Your task to perform on an android device: Open Google Chrome Image 0: 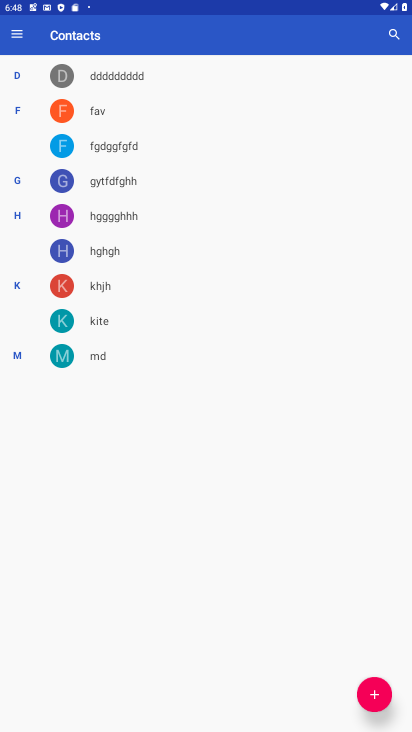
Step 0: press home button
Your task to perform on an android device: Open Google Chrome Image 1: 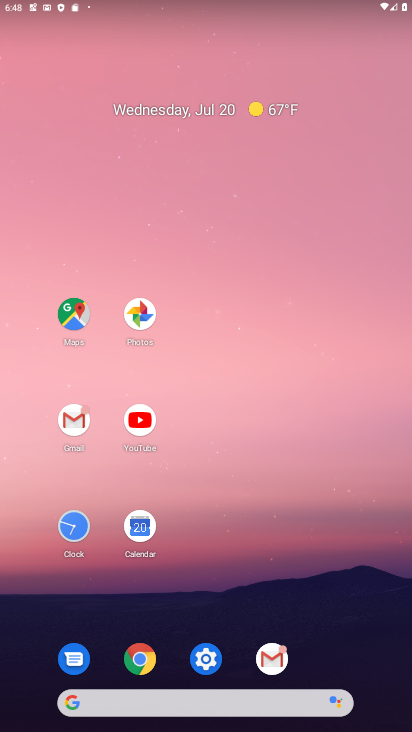
Step 1: click (140, 662)
Your task to perform on an android device: Open Google Chrome Image 2: 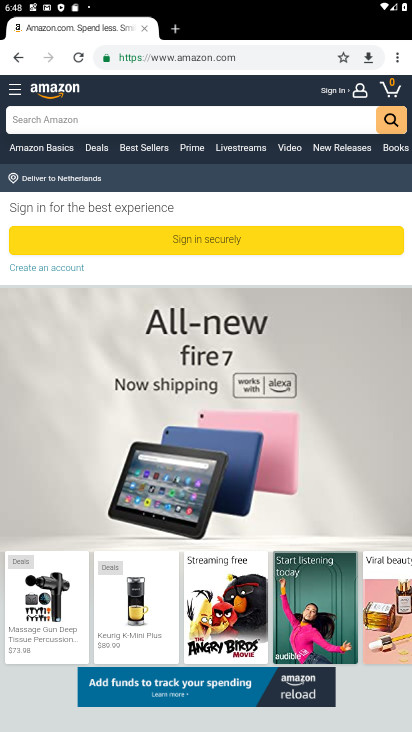
Step 2: task complete